Your task to perform on an android device: Search for pizza restaurants on Maps Image 0: 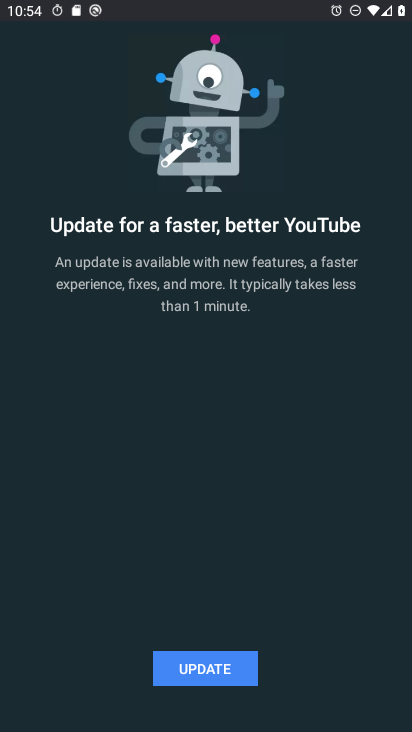
Step 0: press home button
Your task to perform on an android device: Search for pizza restaurants on Maps Image 1: 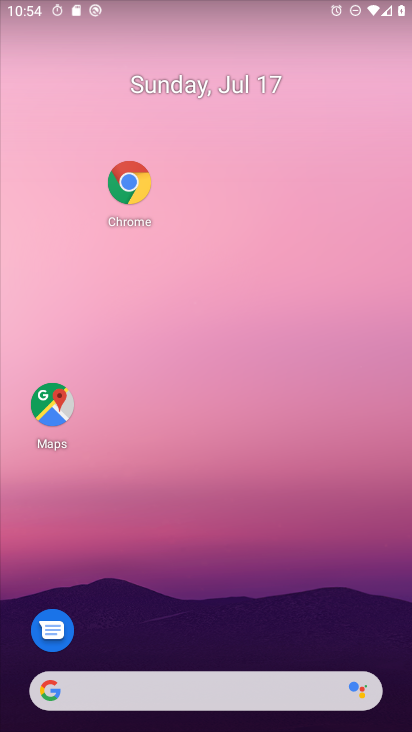
Step 1: click (55, 394)
Your task to perform on an android device: Search for pizza restaurants on Maps Image 2: 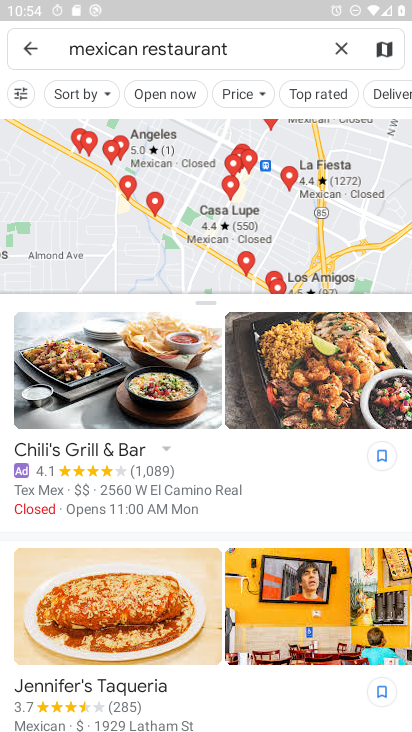
Step 2: click (346, 47)
Your task to perform on an android device: Search for pizza restaurants on Maps Image 3: 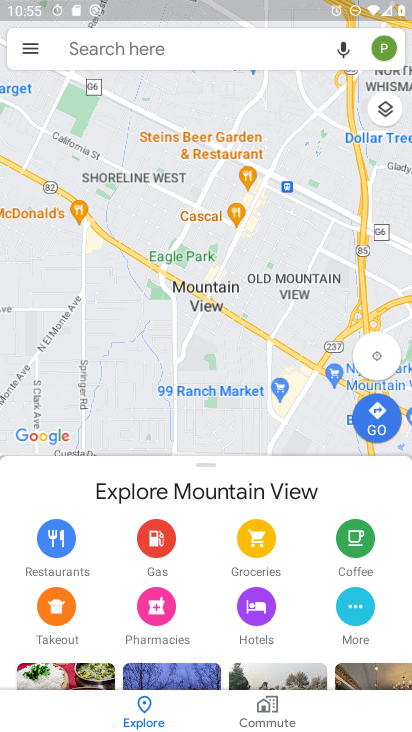
Step 3: click (161, 41)
Your task to perform on an android device: Search for pizza restaurants on Maps Image 4: 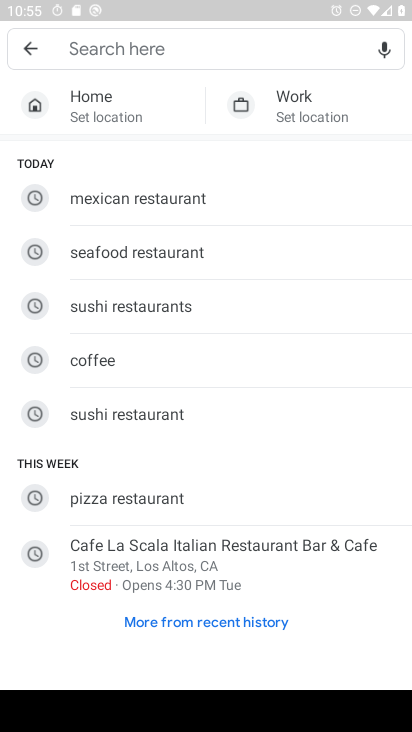
Step 4: click (177, 497)
Your task to perform on an android device: Search for pizza restaurants on Maps Image 5: 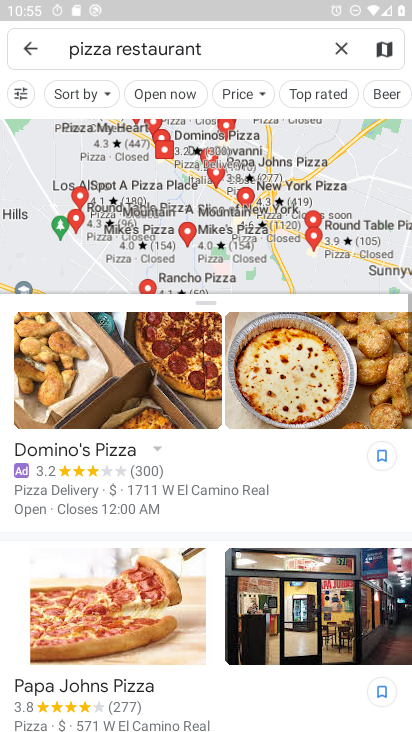
Step 5: task complete